Your task to perform on an android device: open app "Roku - Official Remote Control" Image 0: 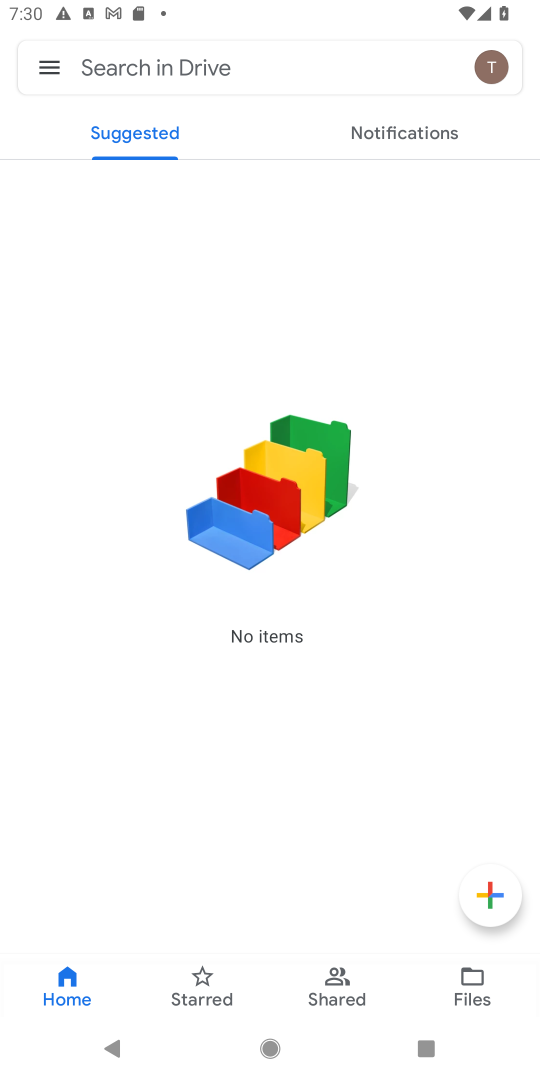
Step 0: press home button
Your task to perform on an android device: open app "Roku - Official Remote Control" Image 1: 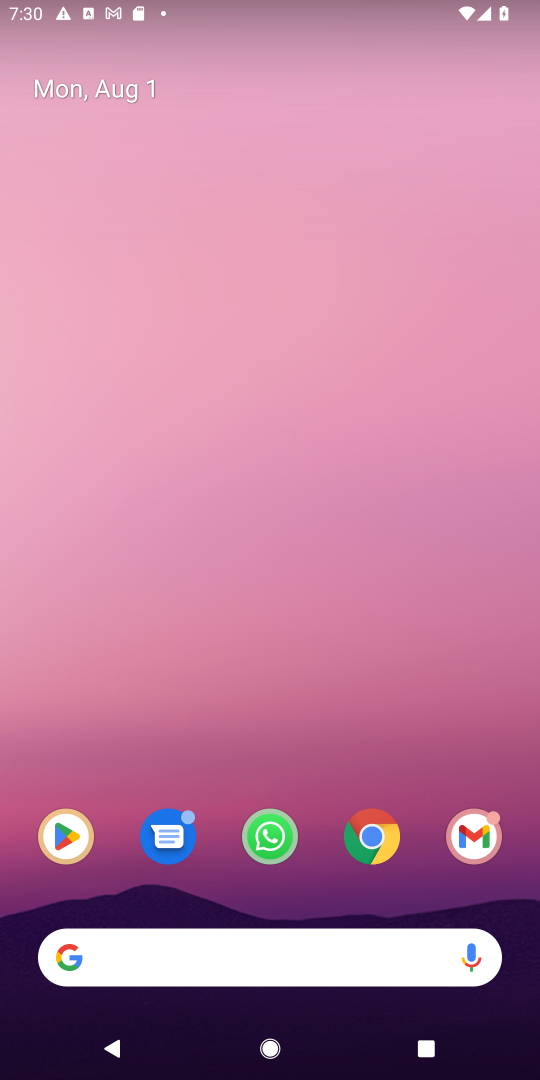
Step 1: click (61, 835)
Your task to perform on an android device: open app "Roku - Official Remote Control" Image 2: 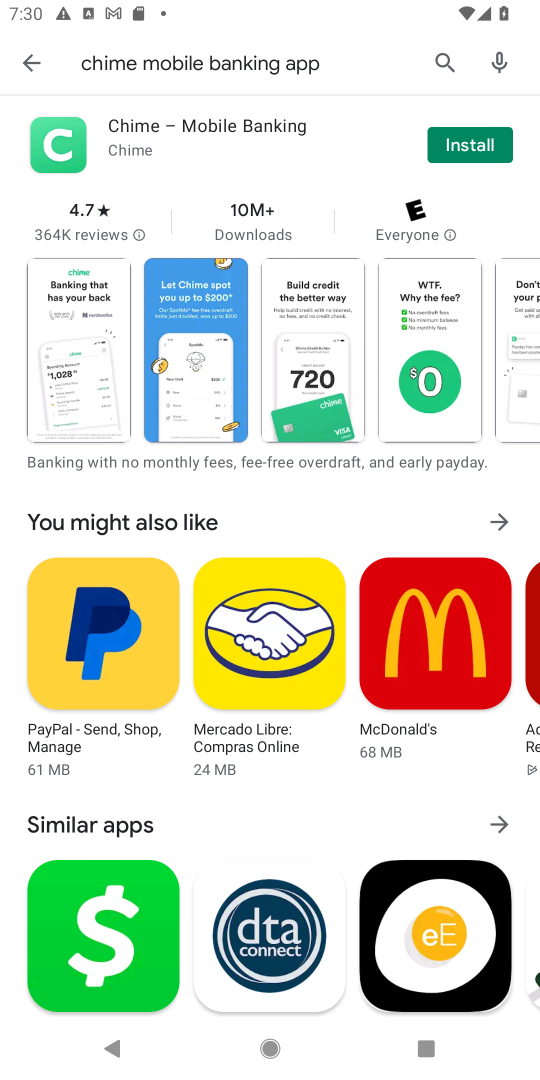
Step 2: click (443, 59)
Your task to perform on an android device: open app "Roku - Official Remote Control" Image 3: 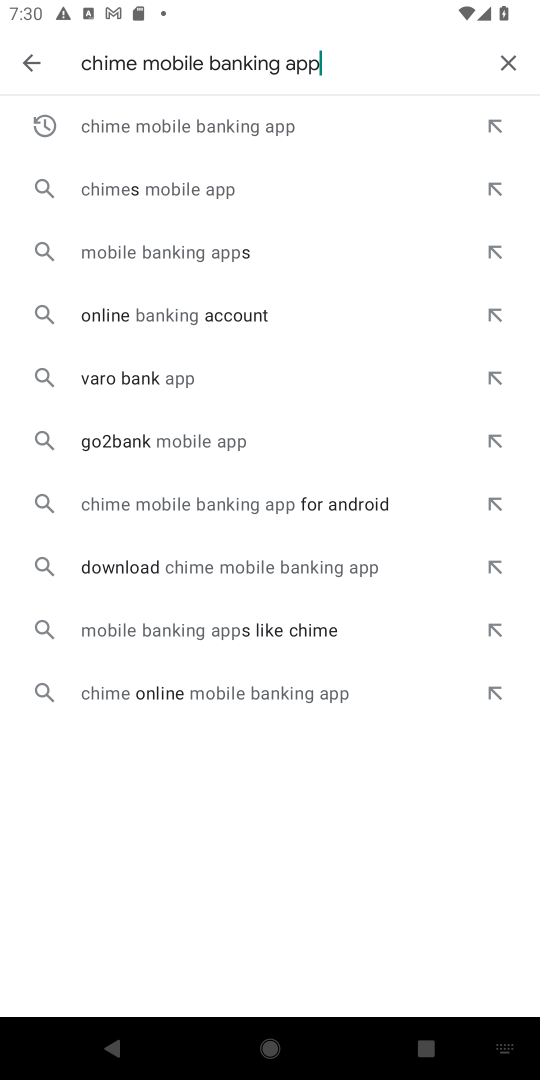
Step 3: click (502, 52)
Your task to perform on an android device: open app "Roku - Official Remote Control" Image 4: 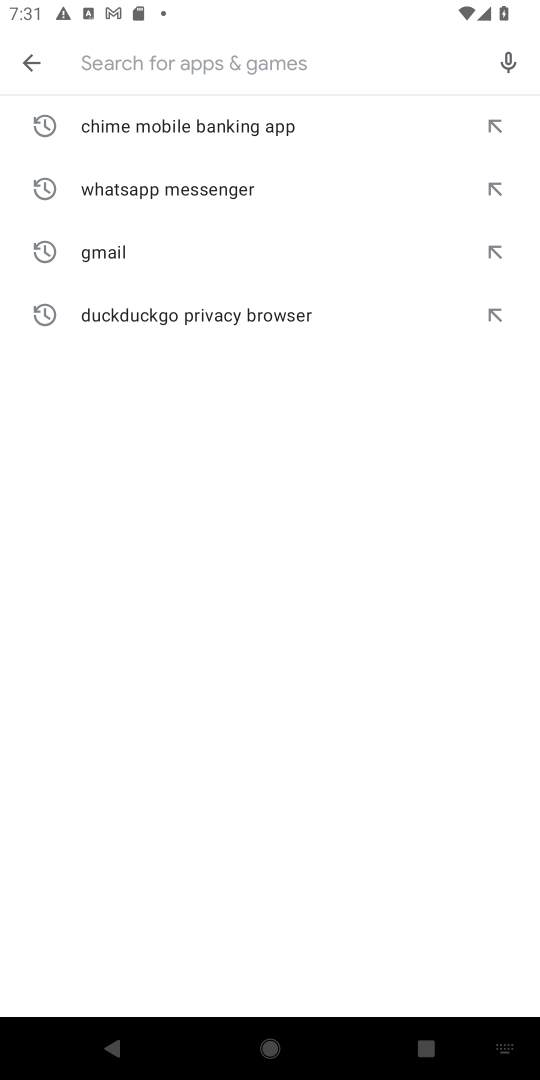
Step 4: type "Roku - Official Remote Control"
Your task to perform on an android device: open app "Roku - Official Remote Control" Image 5: 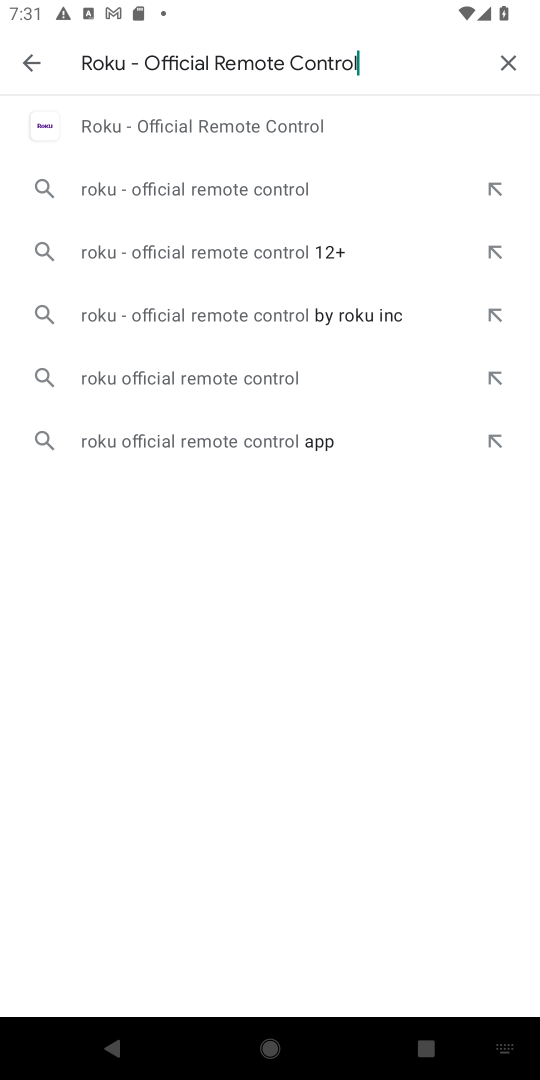
Step 5: click (271, 131)
Your task to perform on an android device: open app "Roku - Official Remote Control" Image 6: 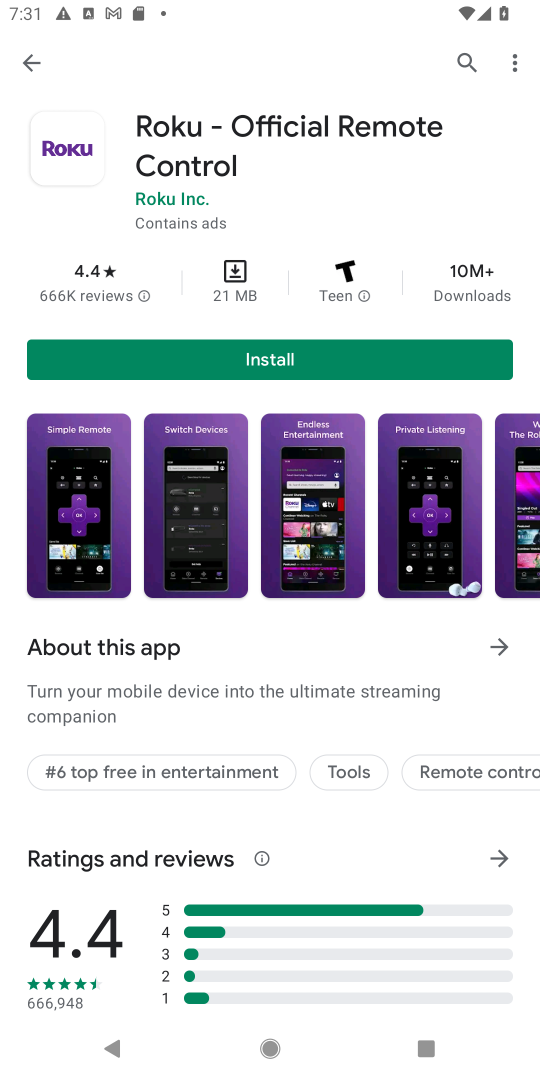
Step 6: task complete